Your task to perform on an android device: manage bookmarks in the chrome app Image 0: 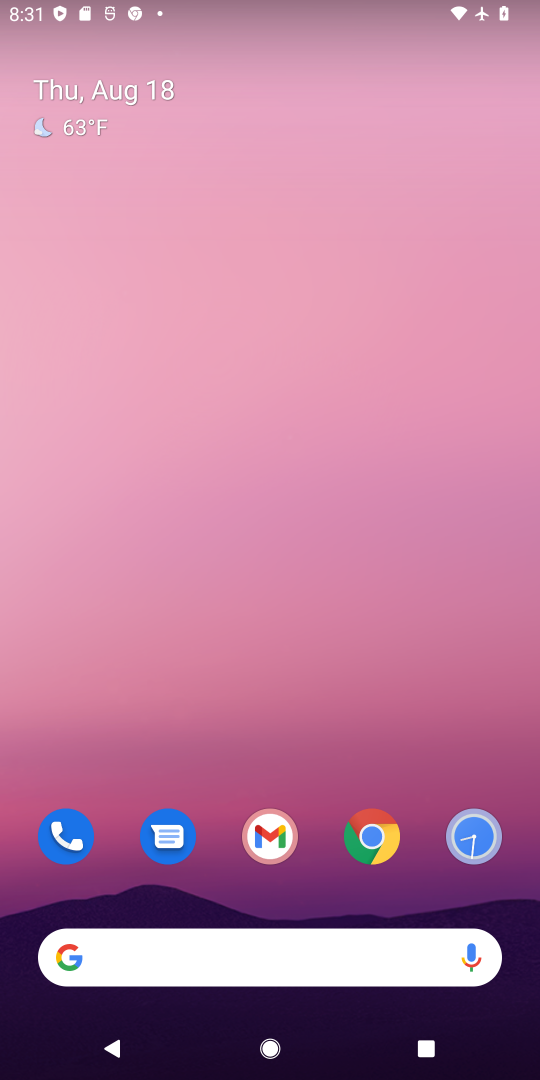
Step 0: drag from (385, 648) to (392, 82)
Your task to perform on an android device: manage bookmarks in the chrome app Image 1: 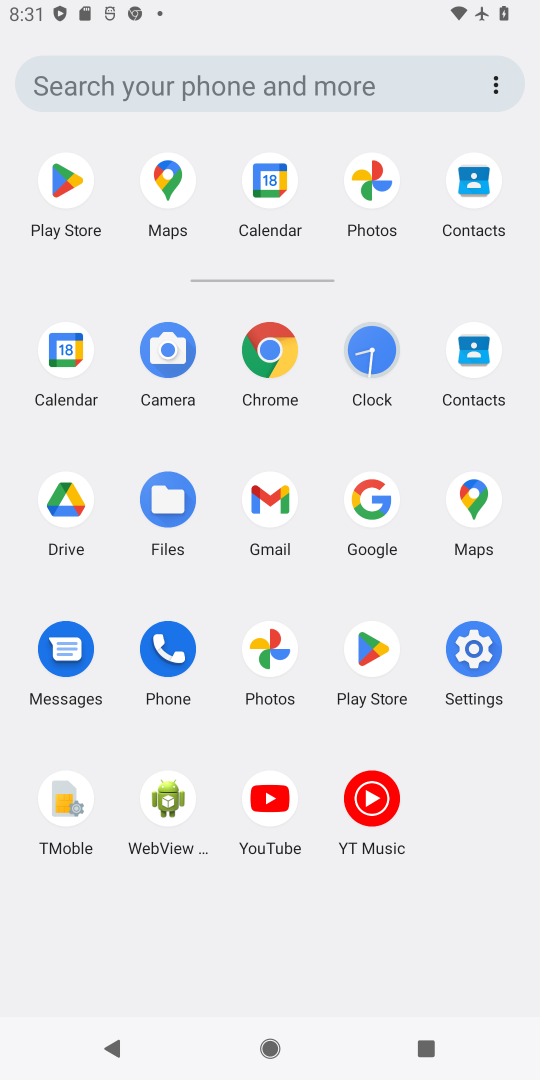
Step 1: click (275, 346)
Your task to perform on an android device: manage bookmarks in the chrome app Image 2: 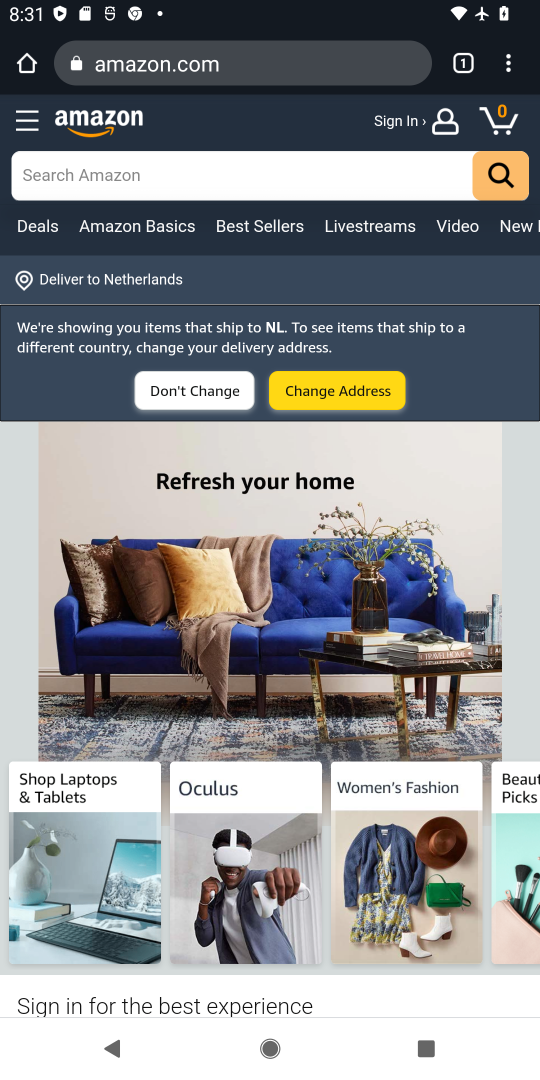
Step 2: drag from (513, 62) to (354, 437)
Your task to perform on an android device: manage bookmarks in the chrome app Image 3: 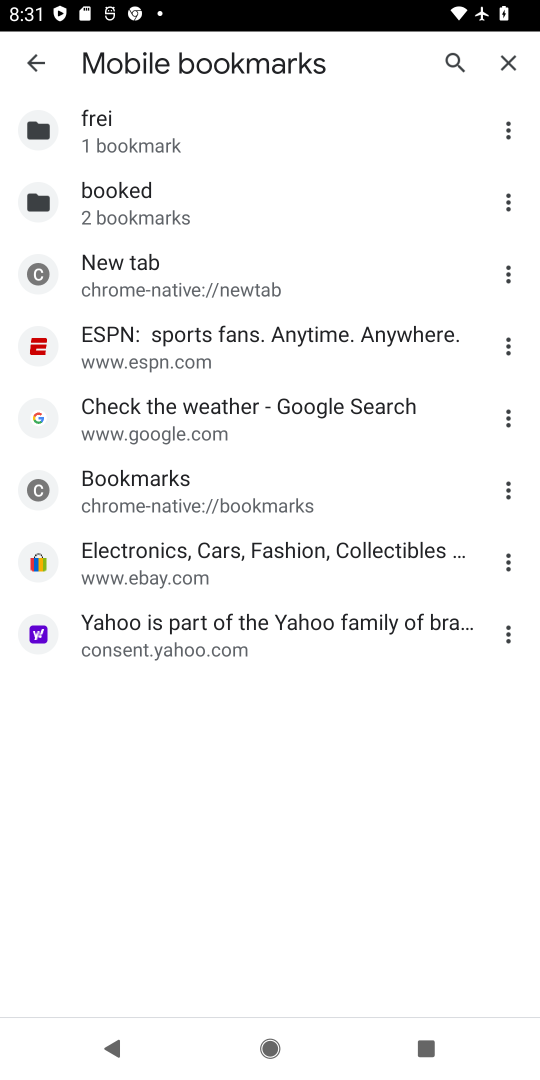
Step 3: click (498, 549)
Your task to perform on an android device: manage bookmarks in the chrome app Image 4: 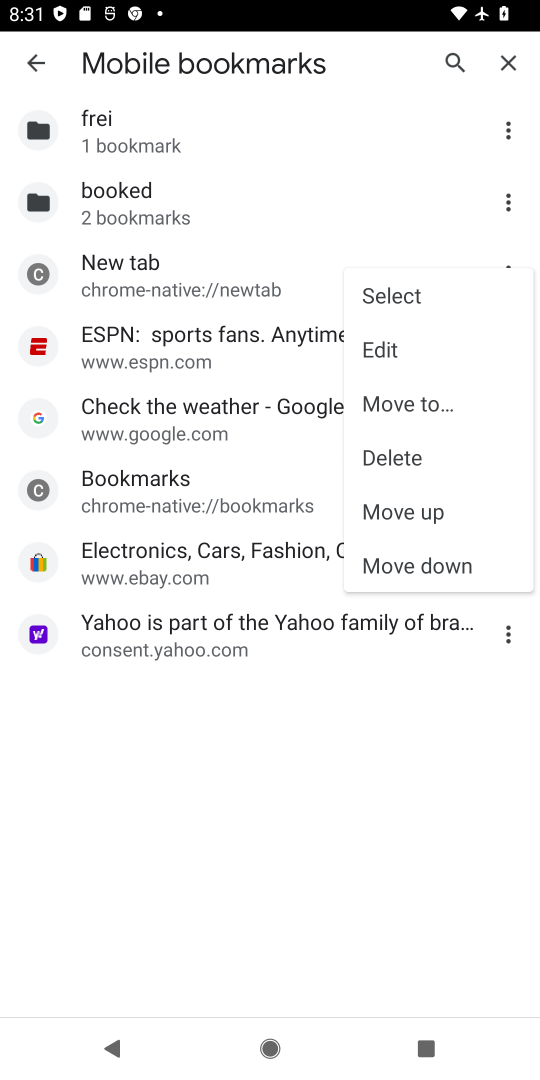
Step 4: click (432, 327)
Your task to perform on an android device: manage bookmarks in the chrome app Image 5: 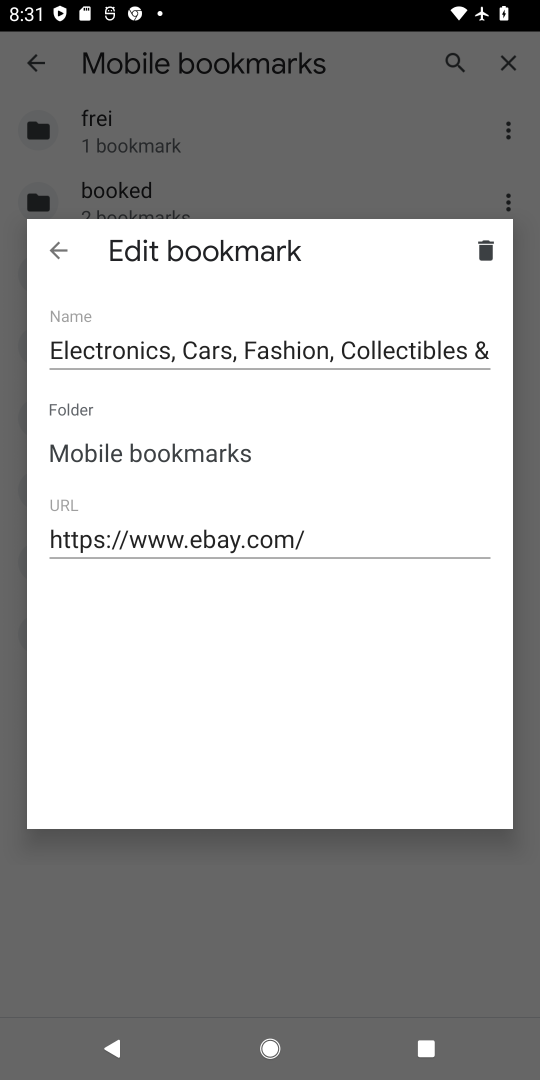
Step 5: click (314, 355)
Your task to perform on an android device: manage bookmarks in the chrome app Image 6: 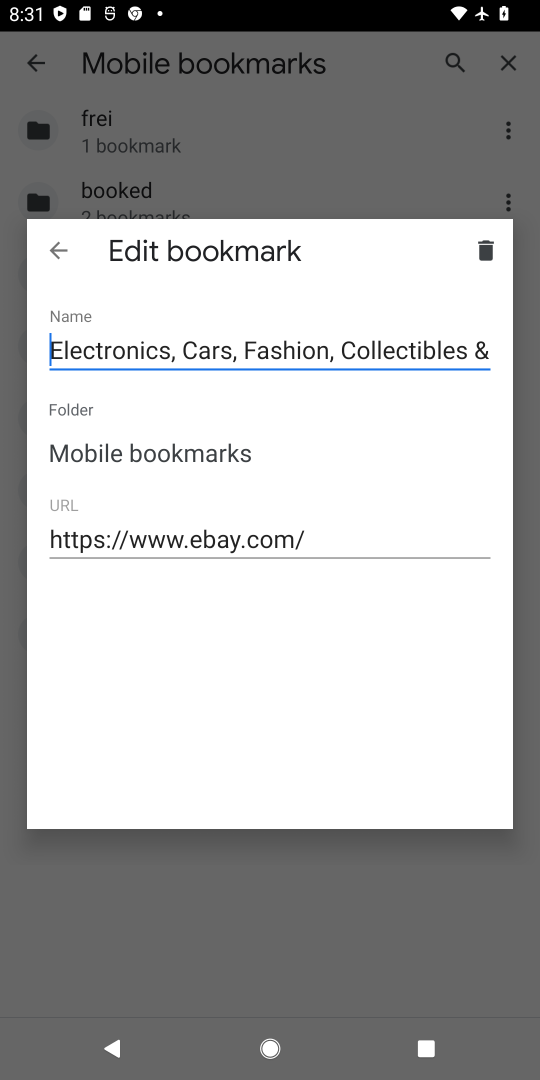
Step 6: click (303, 352)
Your task to perform on an android device: manage bookmarks in the chrome app Image 7: 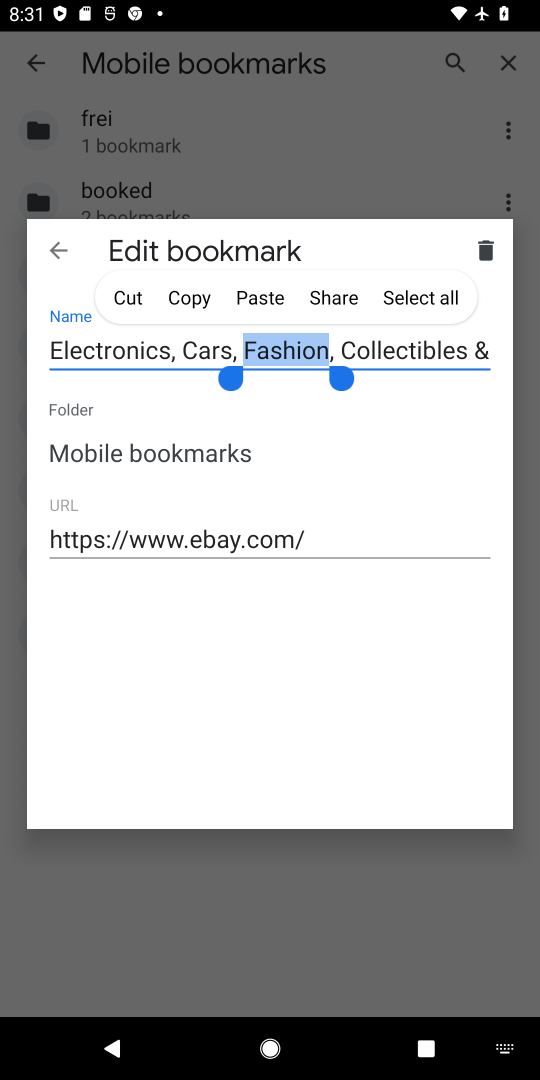
Step 7: click (133, 291)
Your task to perform on an android device: manage bookmarks in the chrome app Image 8: 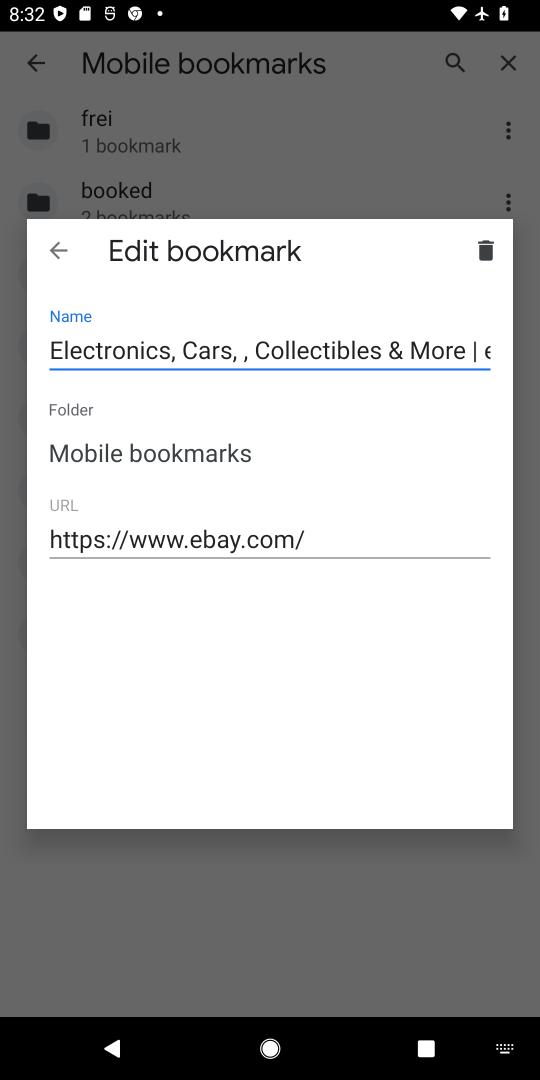
Step 8: click (75, 255)
Your task to perform on an android device: manage bookmarks in the chrome app Image 9: 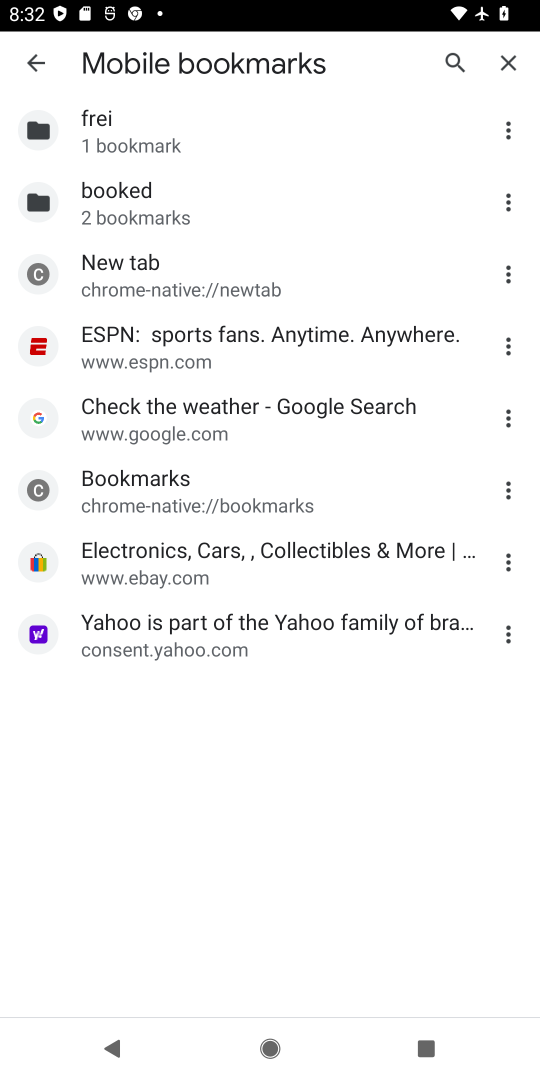
Step 9: task complete